Your task to perform on an android device: Open calendar and show me the third week of next month Image 0: 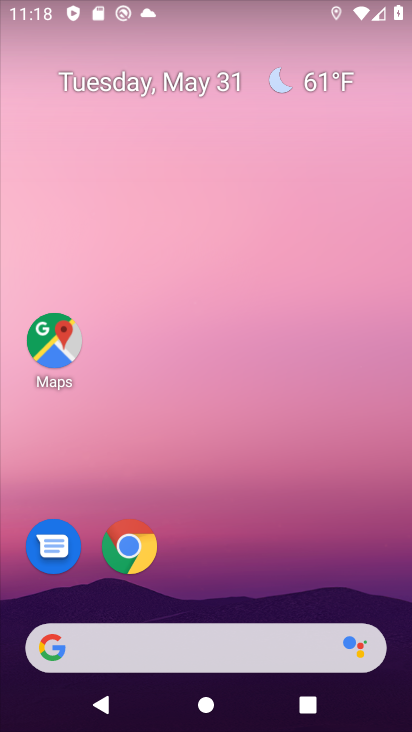
Step 0: drag from (215, 624) to (136, 76)
Your task to perform on an android device: Open calendar and show me the third week of next month Image 1: 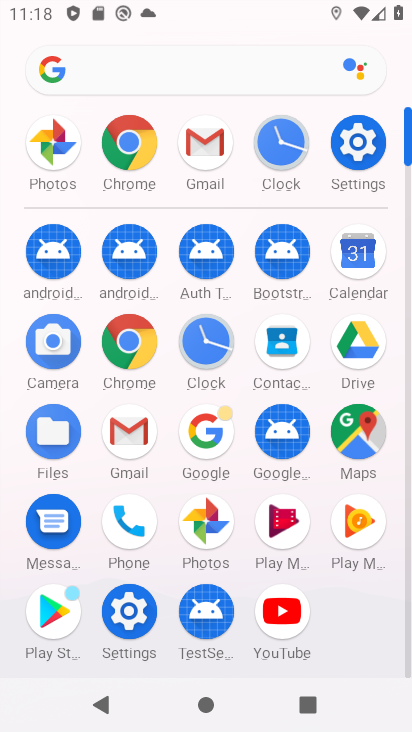
Step 1: click (343, 262)
Your task to perform on an android device: Open calendar and show me the third week of next month Image 2: 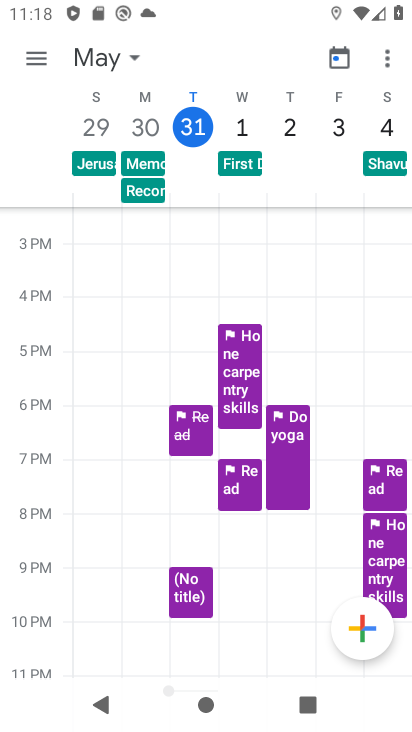
Step 2: task complete